Your task to perform on an android device: turn on notifications settings in the gmail app Image 0: 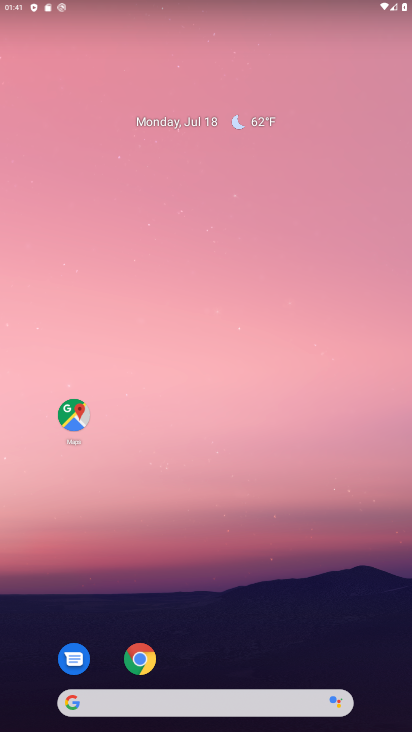
Step 0: drag from (278, 617) to (262, 139)
Your task to perform on an android device: turn on notifications settings in the gmail app Image 1: 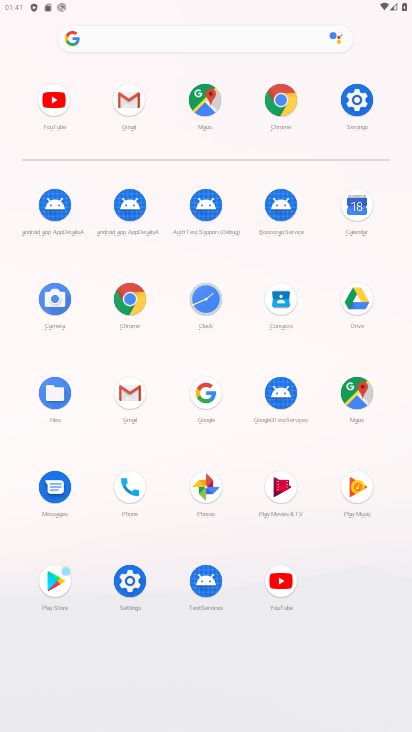
Step 1: click (127, 91)
Your task to perform on an android device: turn on notifications settings in the gmail app Image 2: 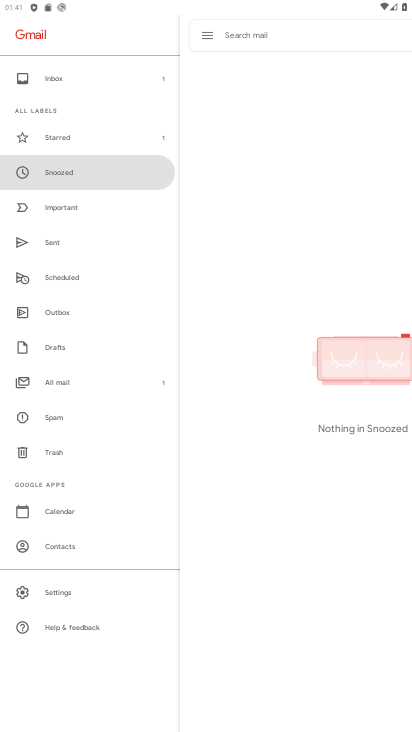
Step 2: click (53, 593)
Your task to perform on an android device: turn on notifications settings in the gmail app Image 3: 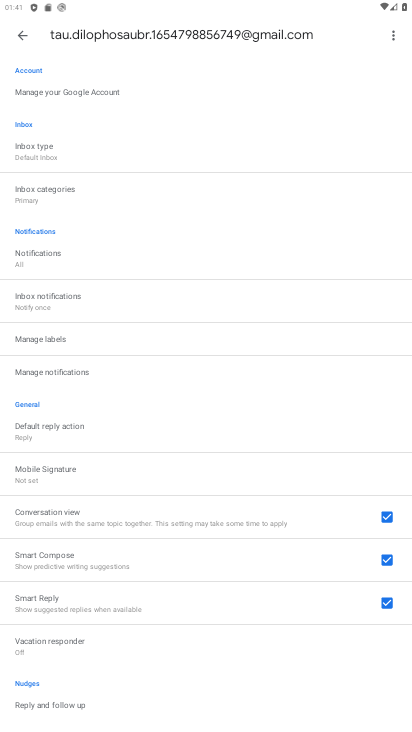
Step 3: click (83, 373)
Your task to perform on an android device: turn on notifications settings in the gmail app Image 4: 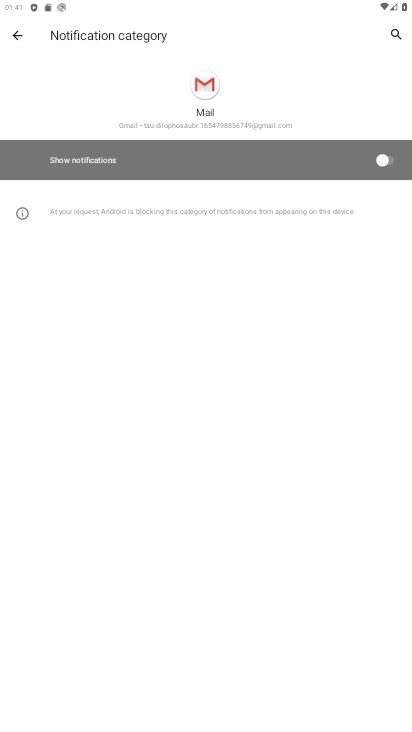
Step 4: click (381, 161)
Your task to perform on an android device: turn on notifications settings in the gmail app Image 5: 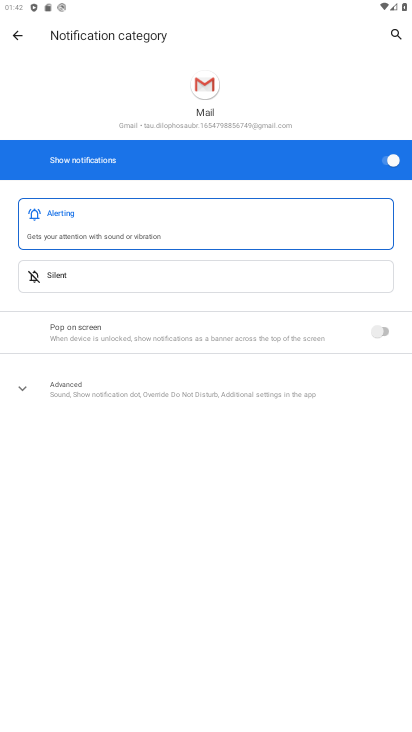
Step 5: task complete